Your task to perform on an android device: Go to privacy settings Image 0: 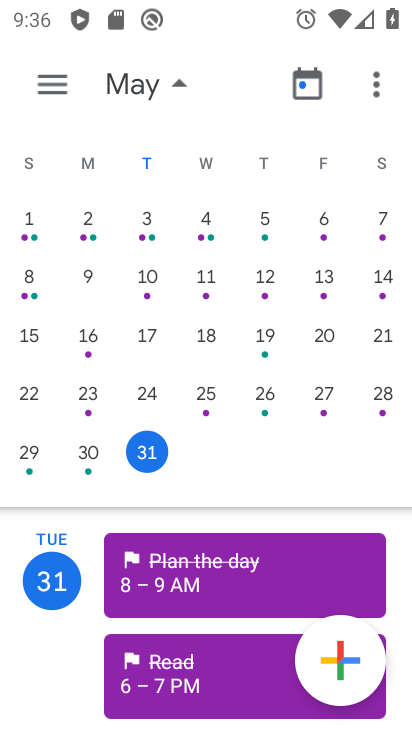
Step 0: press home button
Your task to perform on an android device: Go to privacy settings Image 1: 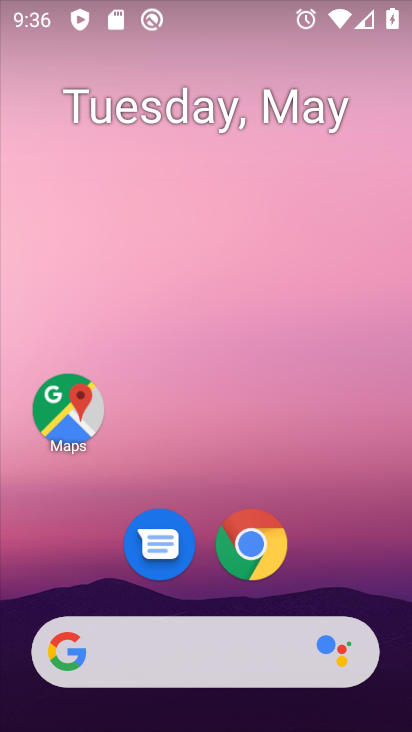
Step 1: drag from (367, 452) to (367, 175)
Your task to perform on an android device: Go to privacy settings Image 2: 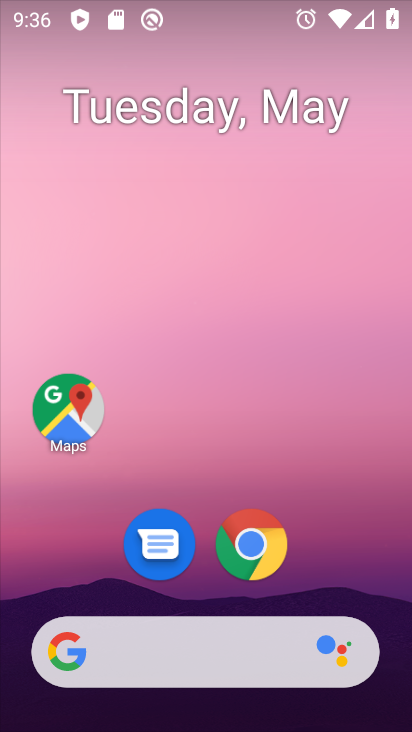
Step 2: drag from (350, 532) to (311, 227)
Your task to perform on an android device: Go to privacy settings Image 3: 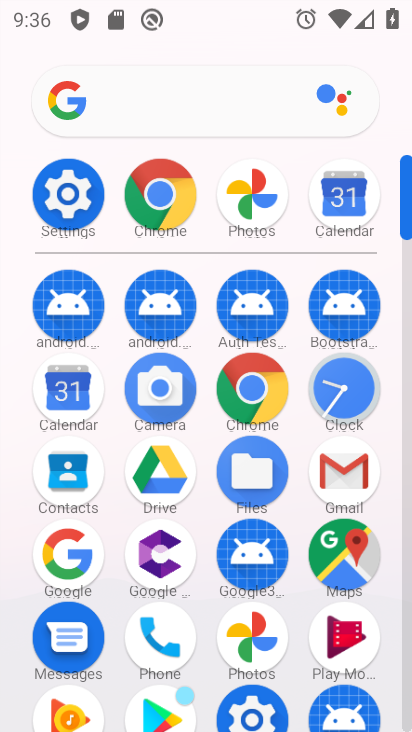
Step 3: click (73, 207)
Your task to perform on an android device: Go to privacy settings Image 4: 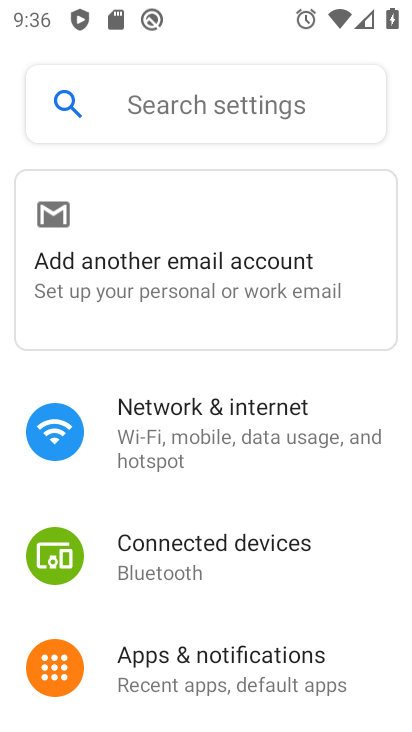
Step 4: drag from (274, 630) to (288, 426)
Your task to perform on an android device: Go to privacy settings Image 5: 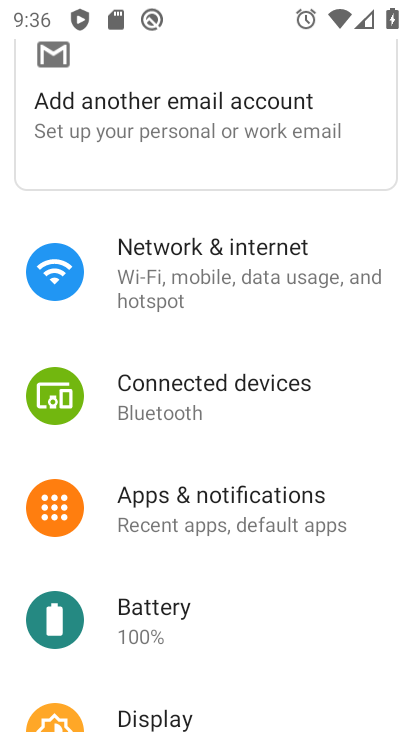
Step 5: drag from (284, 620) to (286, 342)
Your task to perform on an android device: Go to privacy settings Image 6: 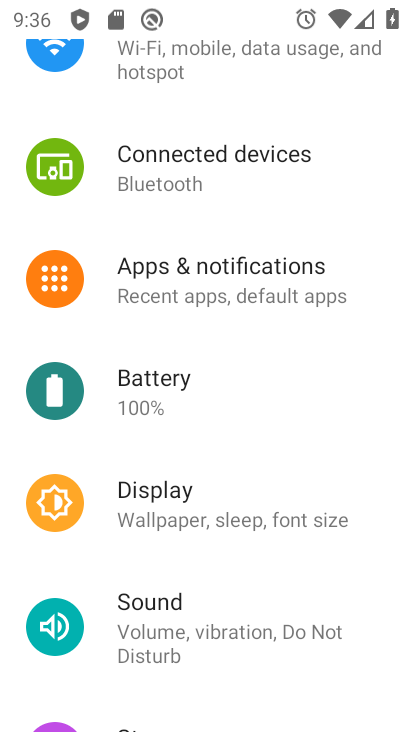
Step 6: drag from (269, 563) to (296, 342)
Your task to perform on an android device: Go to privacy settings Image 7: 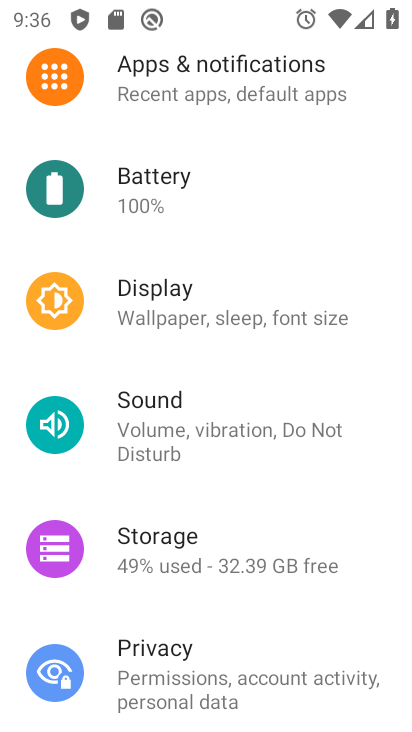
Step 7: click (202, 673)
Your task to perform on an android device: Go to privacy settings Image 8: 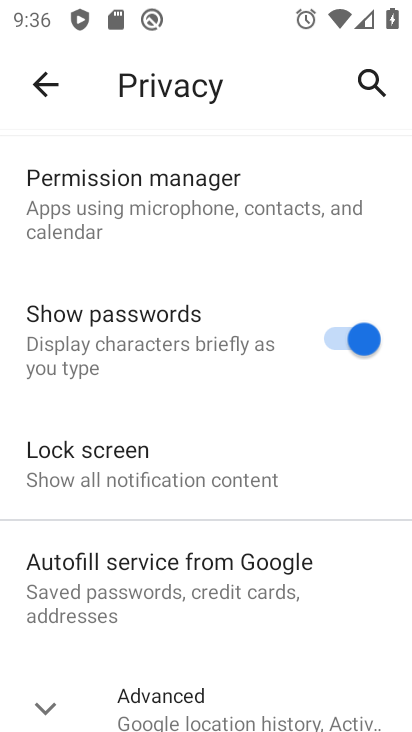
Step 8: task complete